Your task to perform on an android device: What's on my calendar today? Image 0: 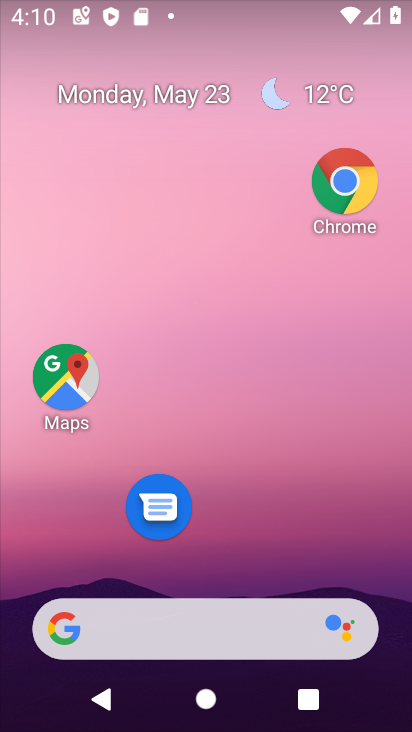
Step 0: click (156, 92)
Your task to perform on an android device: What's on my calendar today? Image 1: 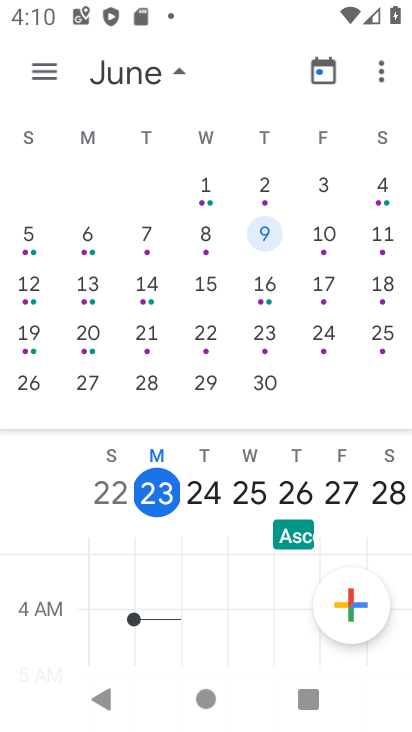
Step 1: task complete